Your task to perform on an android device: see creations saved in the google photos Image 0: 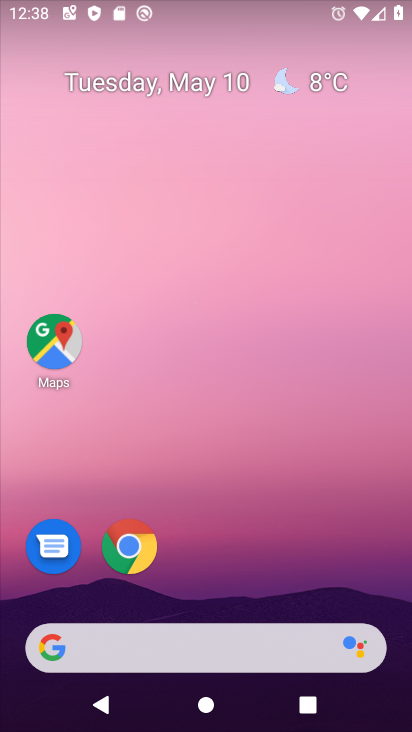
Step 0: drag from (366, 702) to (167, 86)
Your task to perform on an android device: see creations saved in the google photos Image 1: 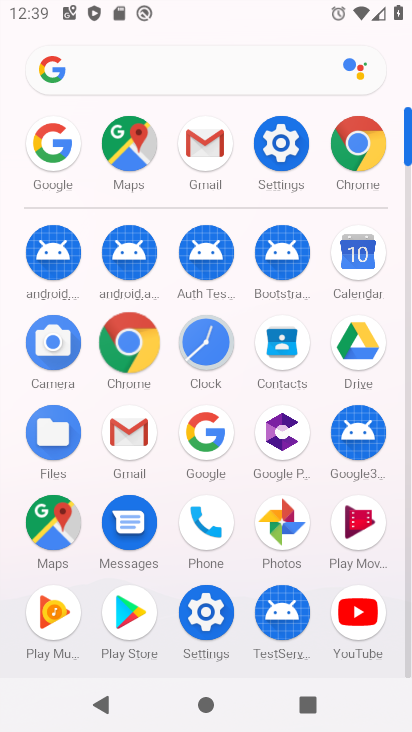
Step 1: click (273, 521)
Your task to perform on an android device: see creations saved in the google photos Image 2: 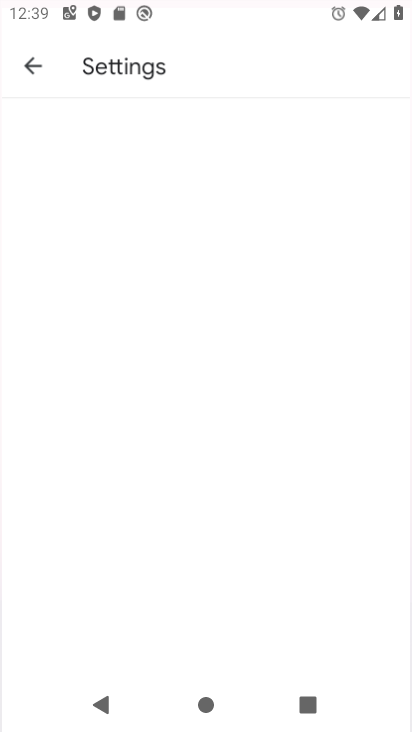
Step 2: click (279, 514)
Your task to perform on an android device: see creations saved in the google photos Image 3: 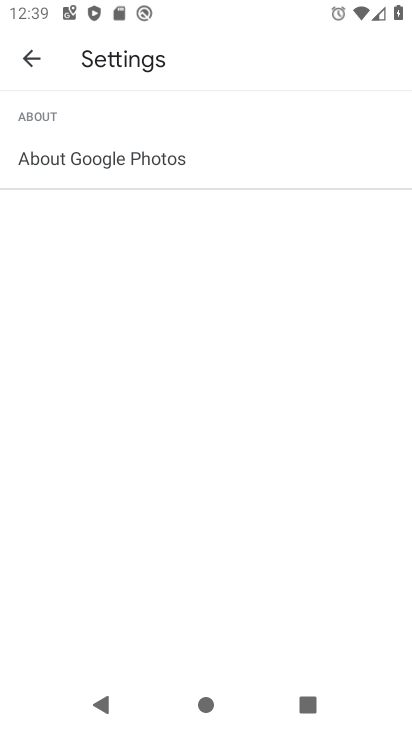
Step 3: click (280, 517)
Your task to perform on an android device: see creations saved in the google photos Image 4: 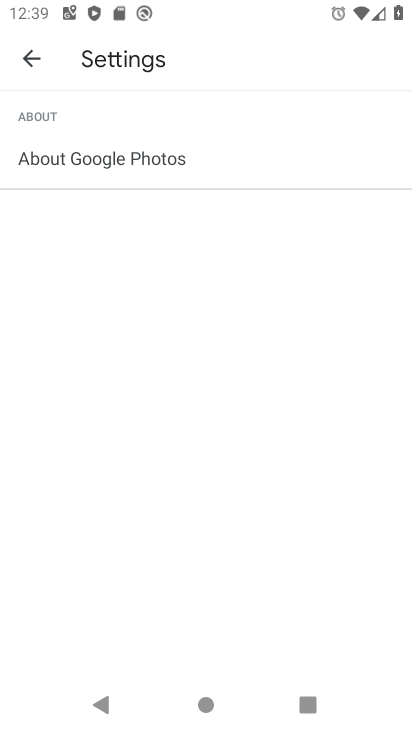
Step 4: click (22, 55)
Your task to perform on an android device: see creations saved in the google photos Image 5: 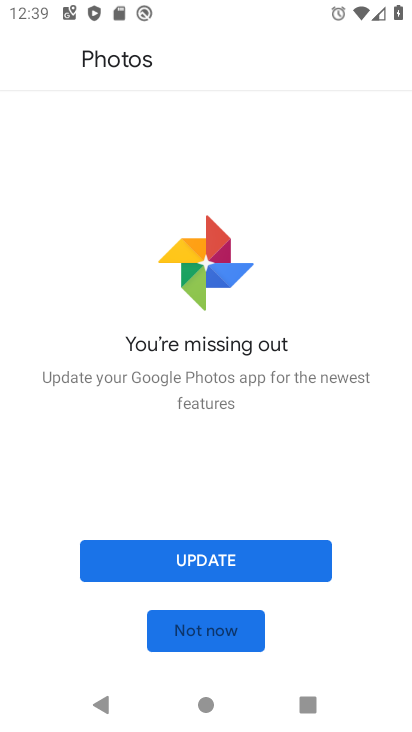
Step 5: click (217, 621)
Your task to perform on an android device: see creations saved in the google photos Image 6: 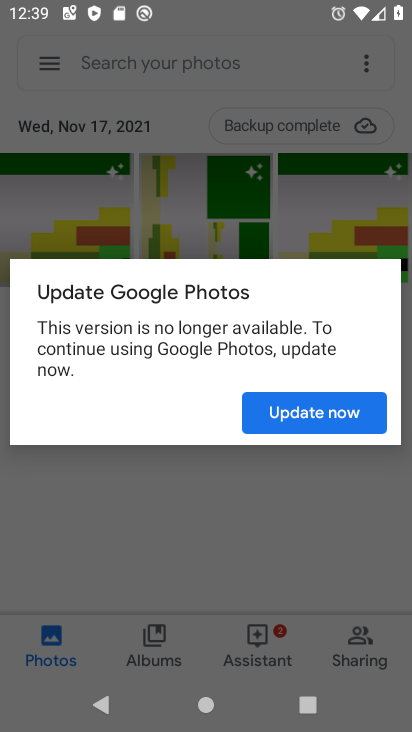
Step 6: click (240, 512)
Your task to perform on an android device: see creations saved in the google photos Image 7: 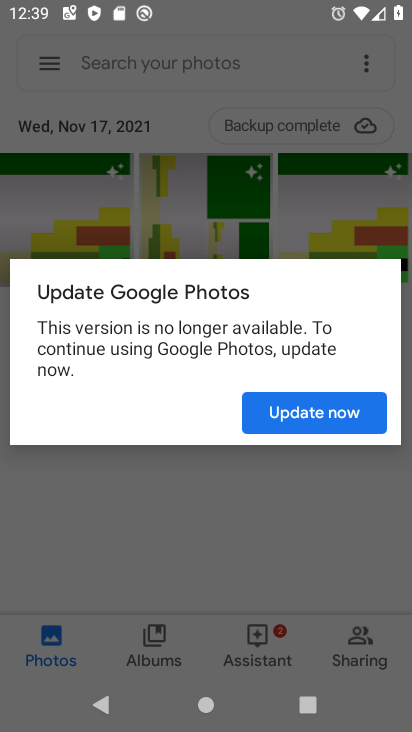
Step 7: click (335, 411)
Your task to perform on an android device: see creations saved in the google photos Image 8: 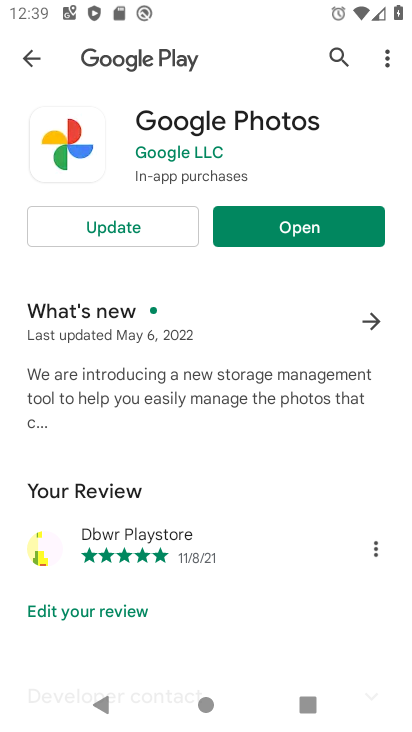
Step 8: click (299, 228)
Your task to perform on an android device: see creations saved in the google photos Image 9: 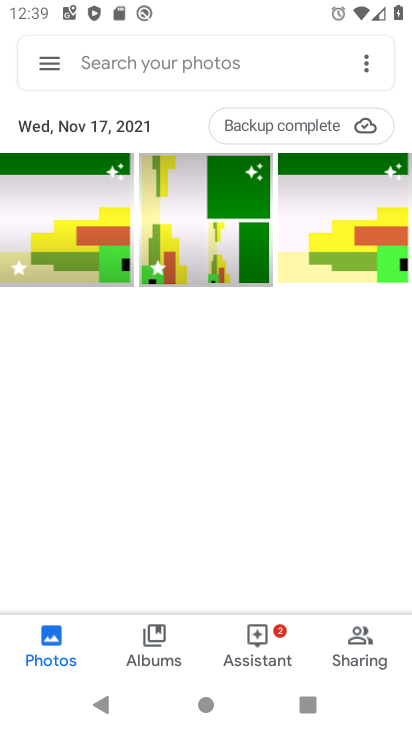
Step 9: task complete